Your task to perform on an android device: Turn off the flashlight Image 0: 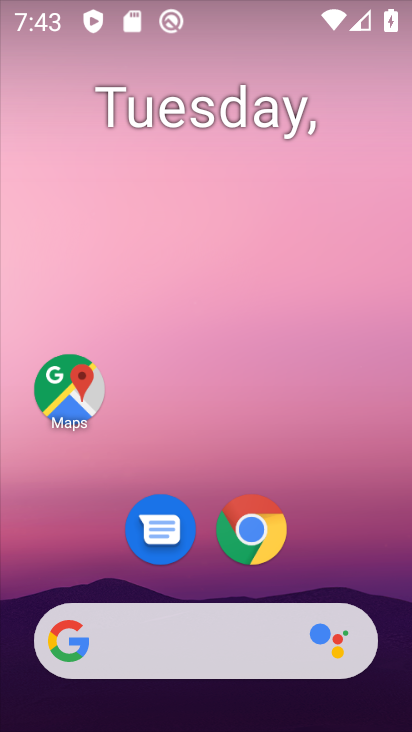
Step 0: drag from (250, 42) to (131, 589)
Your task to perform on an android device: Turn off the flashlight Image 1: 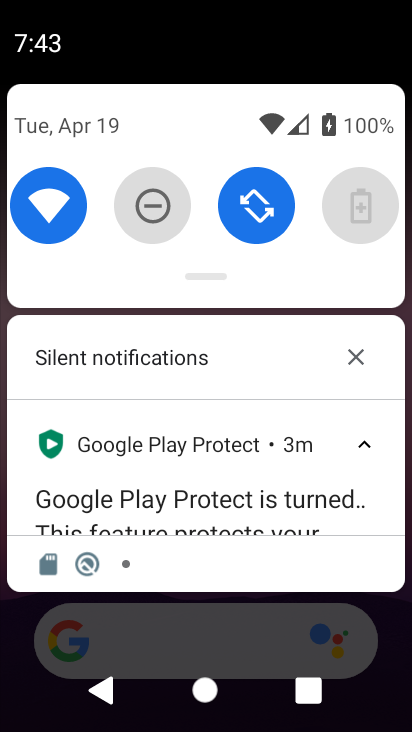
Step 1: task complete